Your task to perform on an android device: turn off improve location accuracy Image 0: 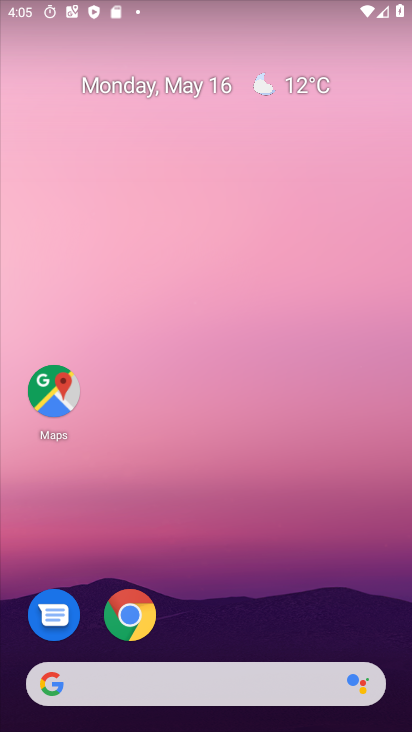
Step 0: drag from (187, 270) to (121, 43)
Your task to perform on an android device: turn off improve location accuracy Image 1: 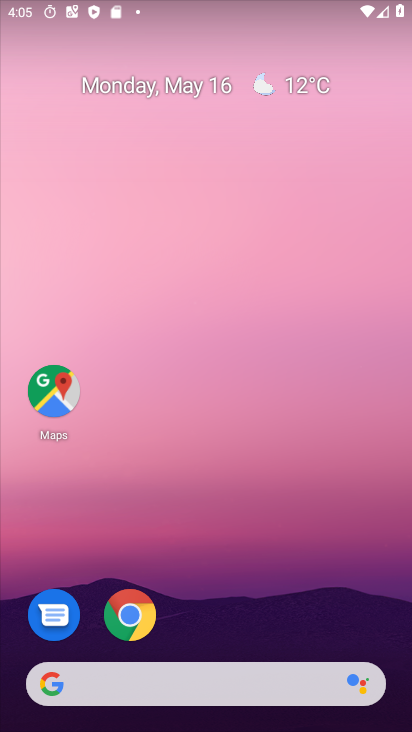
Step 1: drag from (325, 657) to (163, 149)
Your task to perform on an android device: turn off improve location accuracy Image 2: 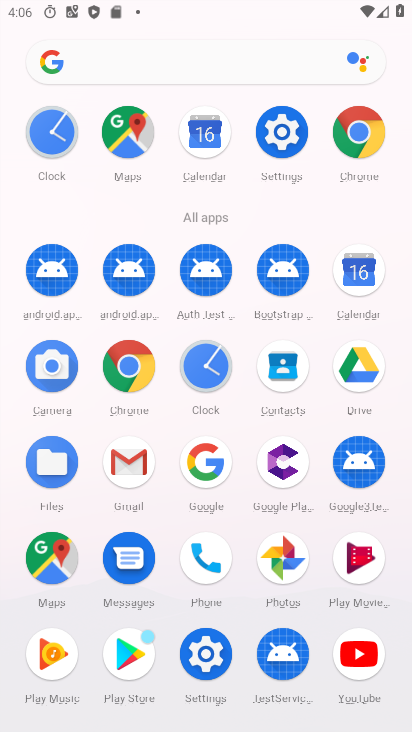
Step 2: click (201, 651)
Your task to perform on an android device: turn off improve location accuracy Image 3: 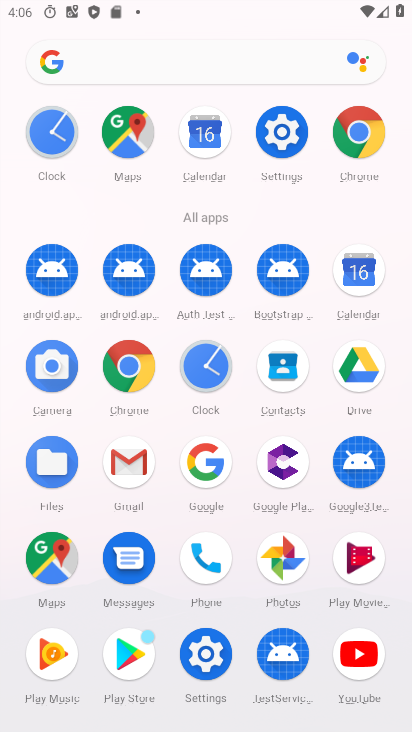
Step 3: click (202, 651)
Your task to perform on an android device: turn off improve location accuracy Image 4: 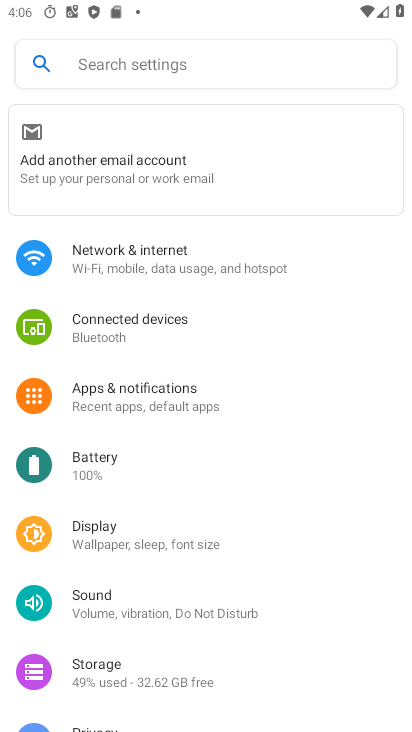
Step 4: drag from (157, 499) to (154, 107)
Your task to perform on an android device: turn off improve location accuracy Image 5: 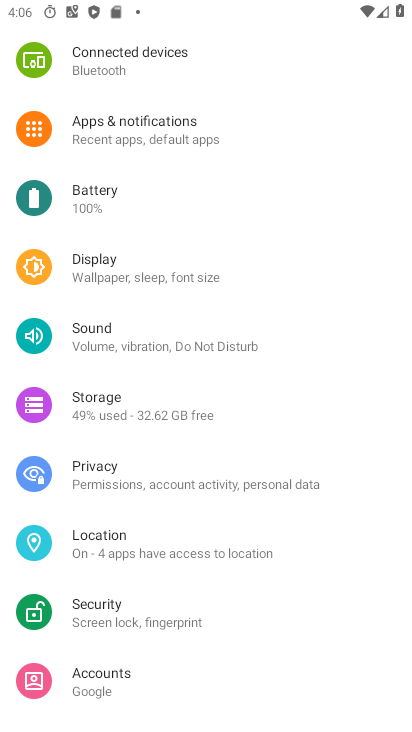
Step 5: drag from (131, 339) to (77, 97)
Your task to perform on an android device: turn off improve location accuracy Image 6: 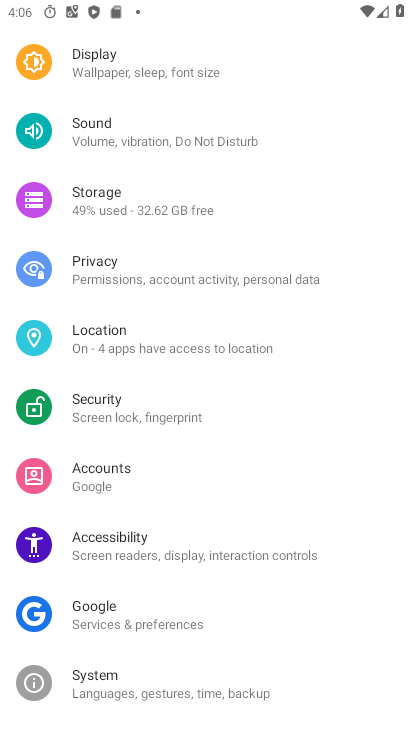
Step 6: drag from (114, 392) to (110, 104)
Your task to perform on an android device: turn off improve location accuracy Image 7: 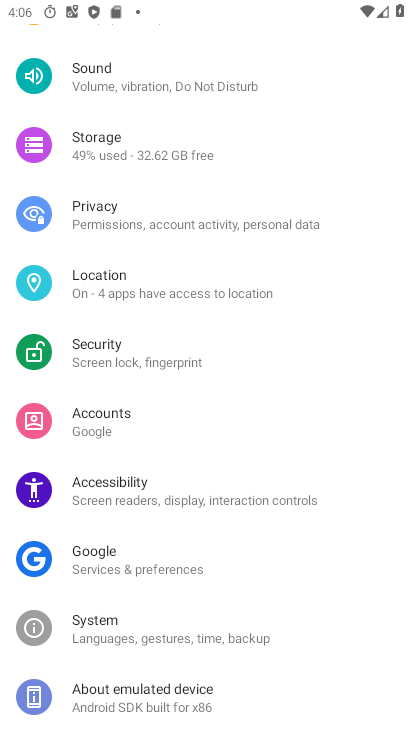
Step 7: click (111, 289)
Your task to perform on an android device: turn off improve location accuracy Image 8: 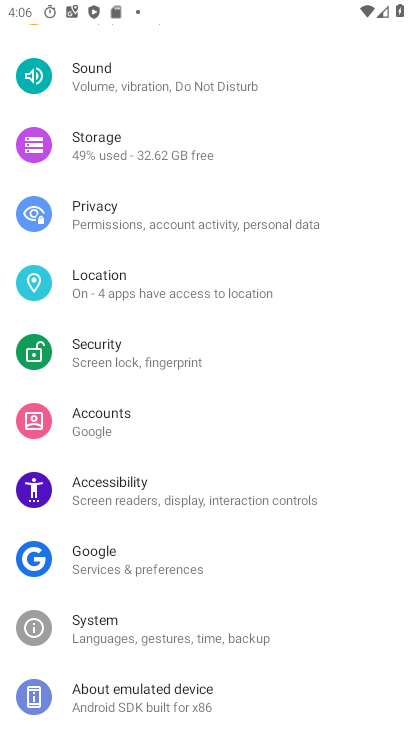
Step 8: click (109, 291)
Your task to perform on an android device: turn off improve location accuracy Image 9: 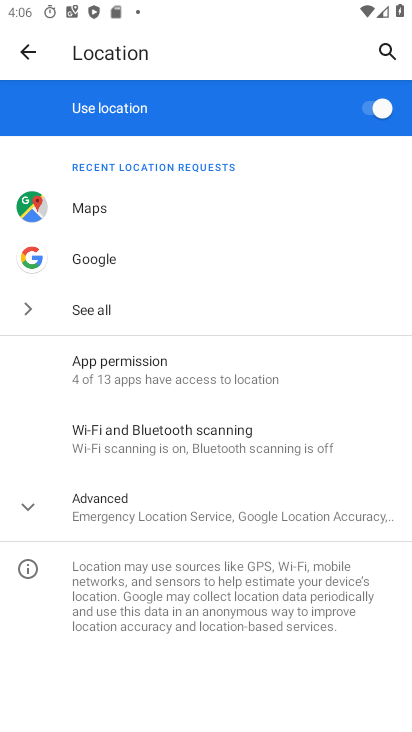
Step 9: click (188, 511)
Your task to perform on an android device: turn off improve location accuracy Image 10: 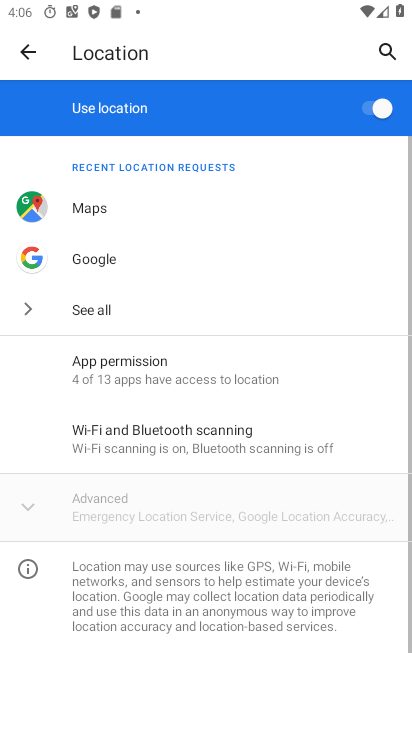
Step 10: click (188, 511)
Your task to perform on an android device: turn off improve location accuracy Image 11: 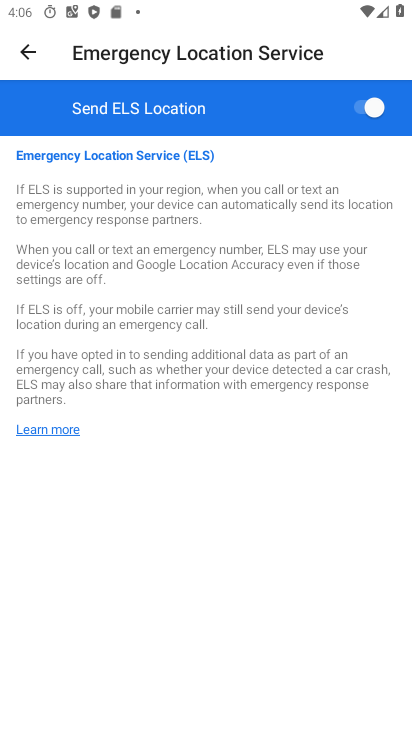
Step 11: click (16, 51)
Your task to perform on an android device: turn off improve location accuracy Image 12: 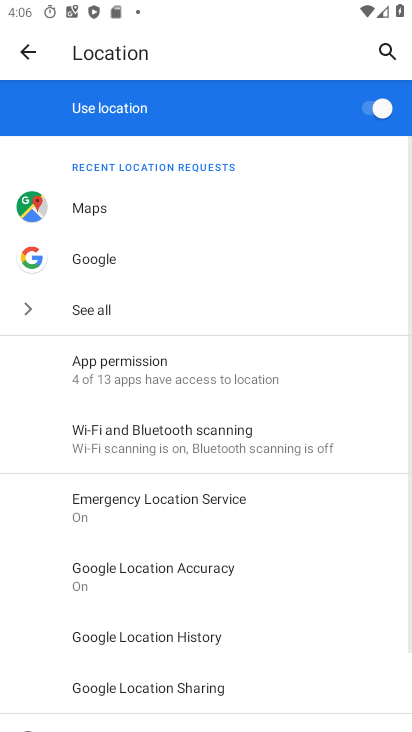
Step 12: click (158, 564)
Your task to perform on an android device: turn off improve location accuracy Image 13: 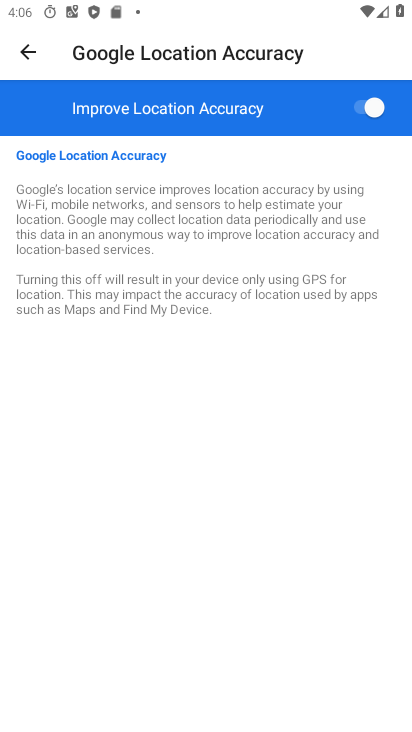
Step 13: click (369, 107)
Your task to perform on an android device: turn off improve location accuracy Image 14: 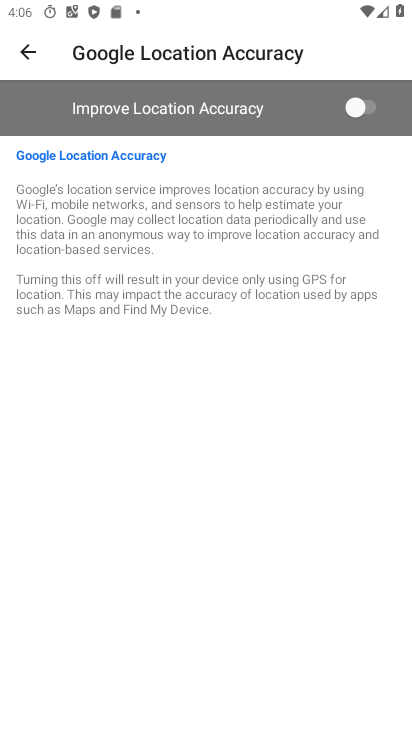
Step 14: task complete